Your task to perform on an android device: Go to battery settings Image 0: 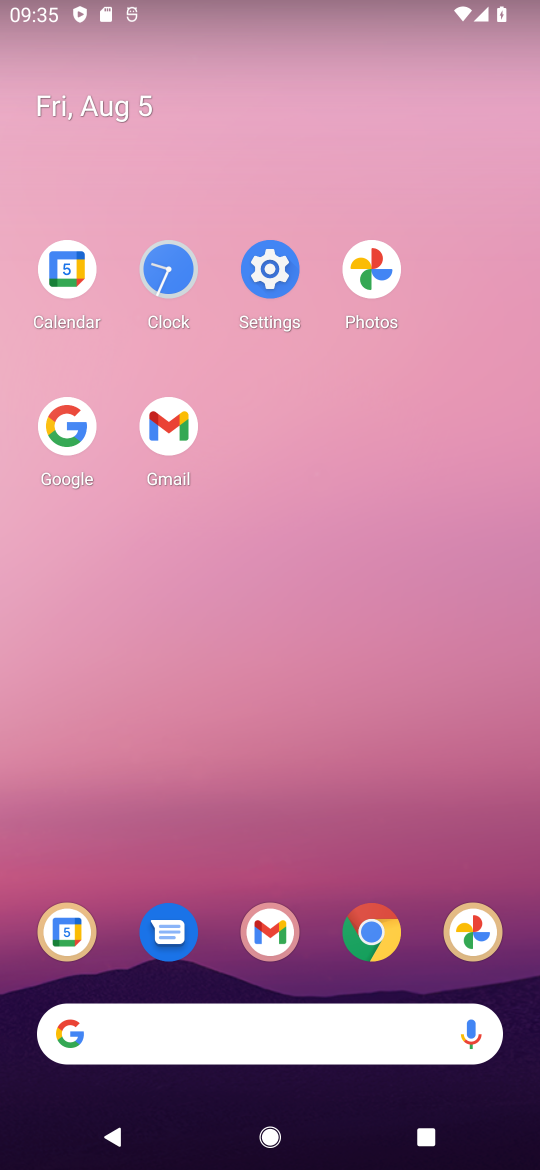
Step 0: click (242, 272)
Your task to perform on an android device: Go to battery settings Image 1: 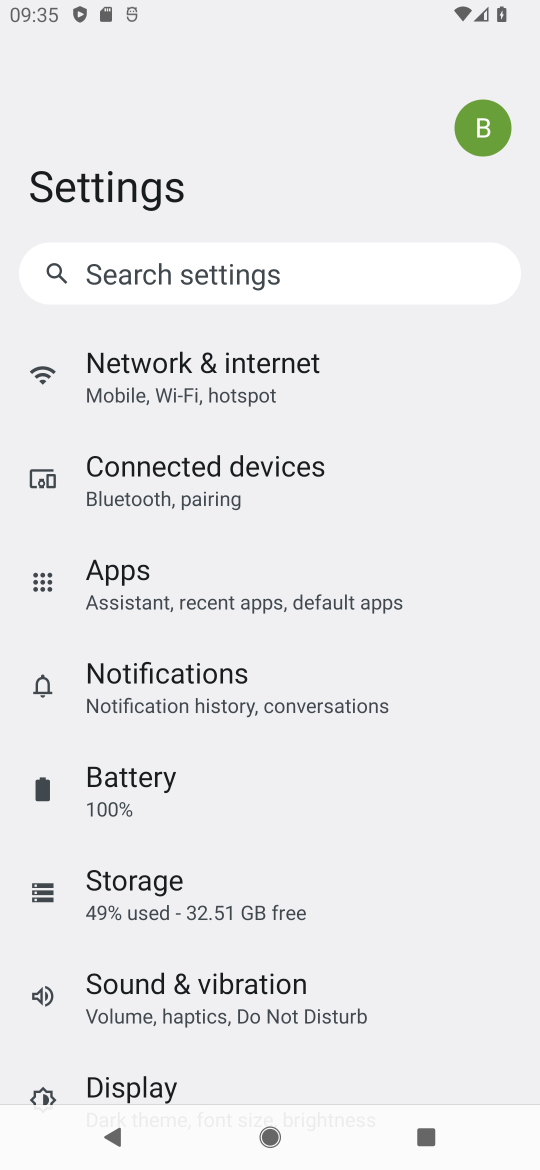
Step 1: click (208, 772)
Your task to perform on an android device: Go to battery settings Image 2: 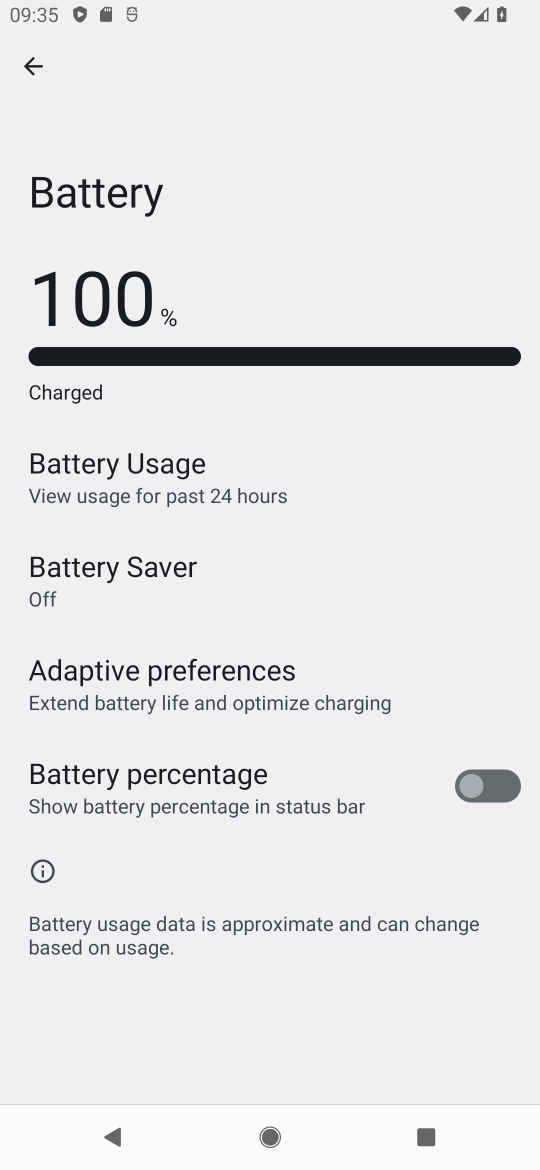
Step 2: task complete